Your task to perform on an android device: Open battery settings Image 0: 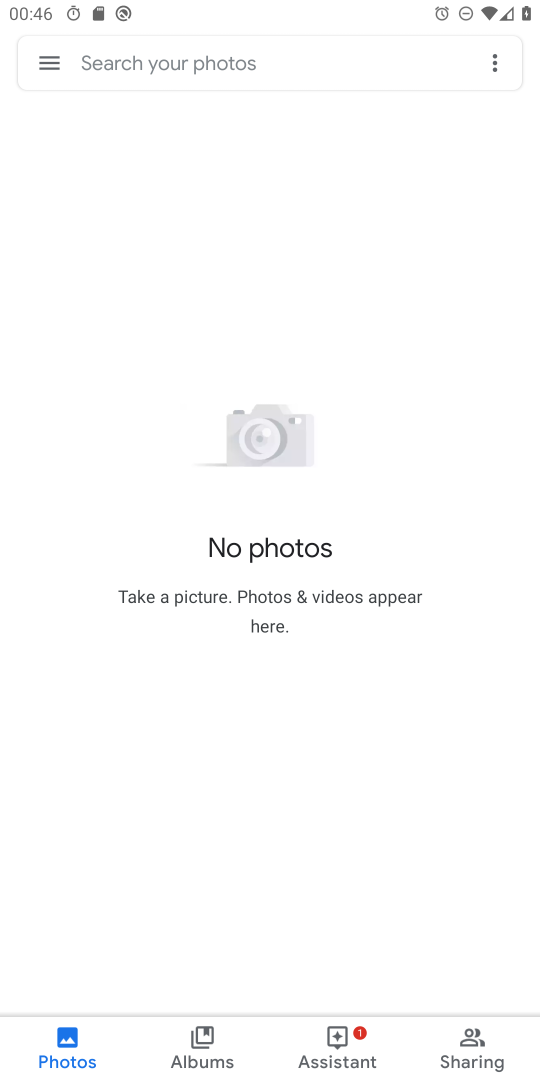
Step 0: drag from (246, 9) to (526, 740)
Your task to perform on an android device: Open battery settings Image 1: 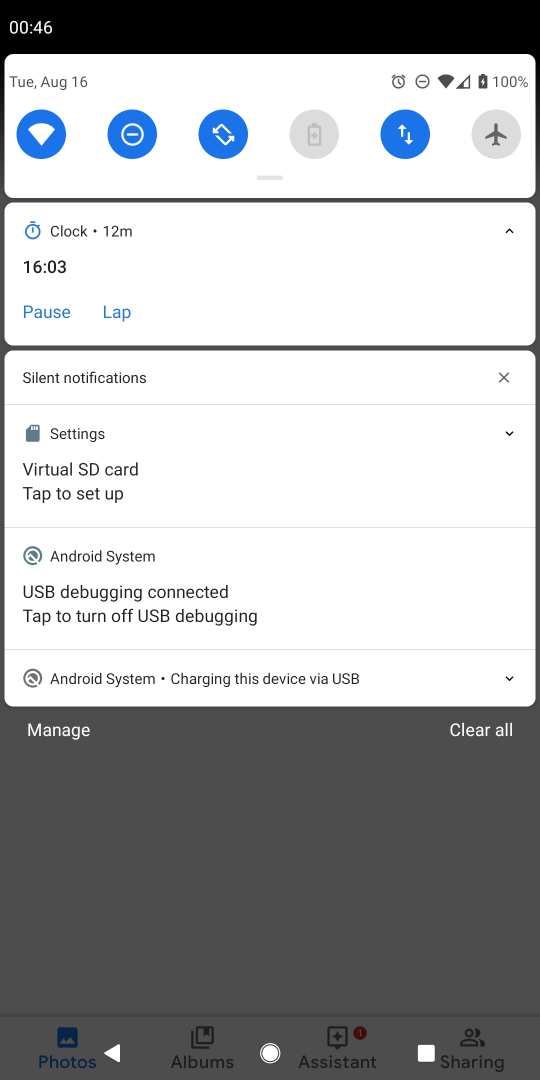
Step 1: click (317, 130)
Your task to perform on an android device: Open battery settings Image 2: 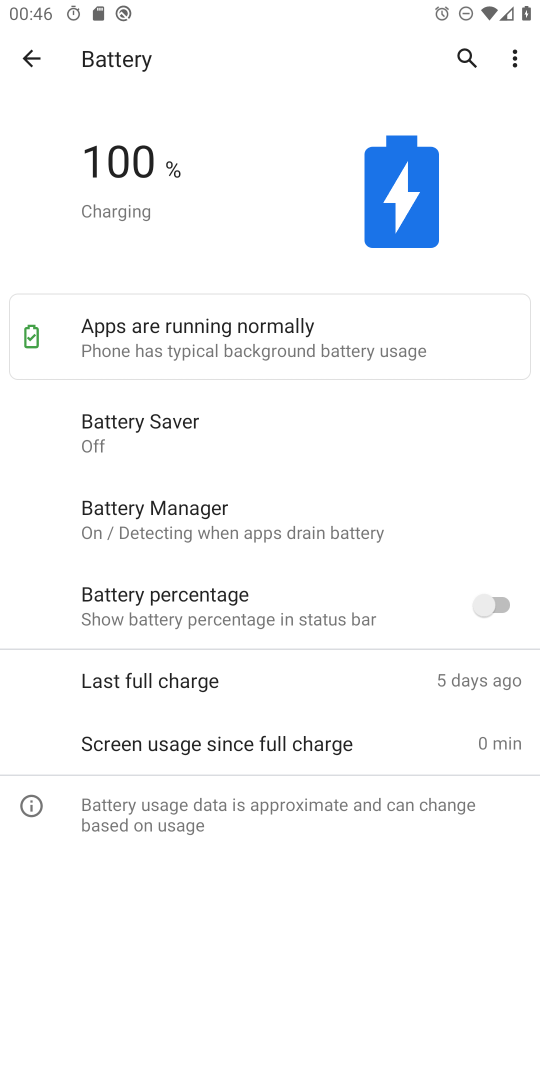
Step 2: task complete